Your task to perform on an android device: Open calendar and show me the fourth week of next month Image 0: 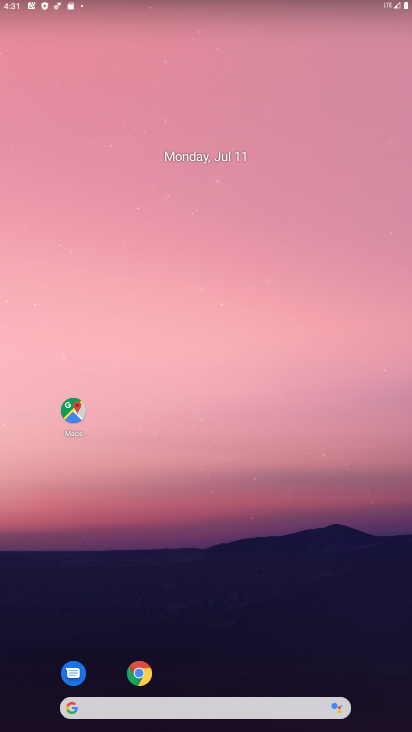
Step 0: drag from (285, 664) to (277, 150)
Your task to perform on an android device: Open calendar and show me the fourth week of next month Image 1: 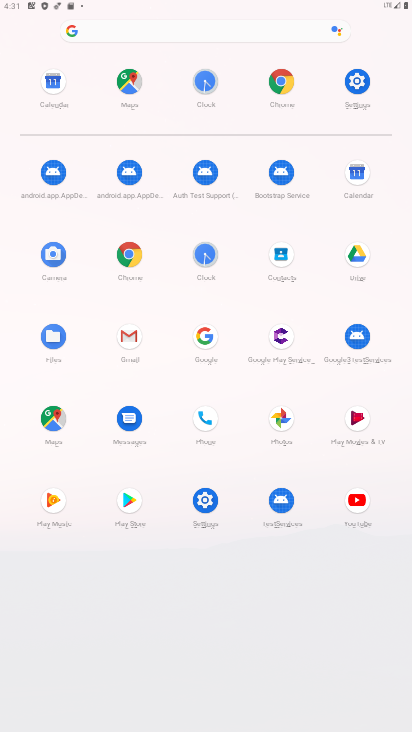
Step 1: click (359, 172)
Your task to perform on an android device: Open calendar and show me the fourth week of next month Image 2: 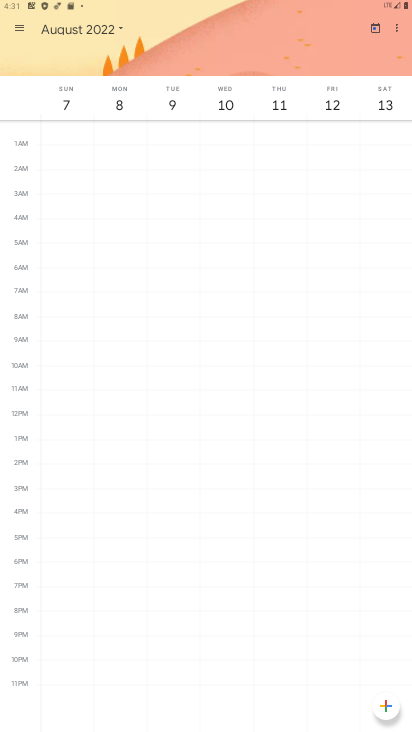
Step 2: click (85, 27)
Your task to perform on an android device: Open calendar and show me the fourth week of next month Image 3: 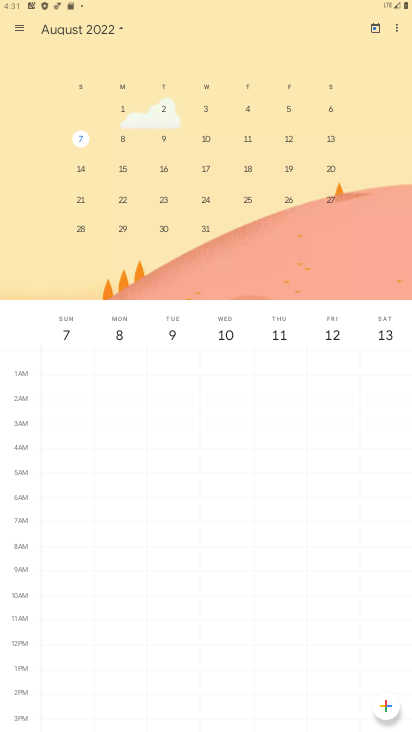
Step 3: click (245, 203)
Your task to perform on an android device: Open calendar and show me the fourth week of next month Image 4: 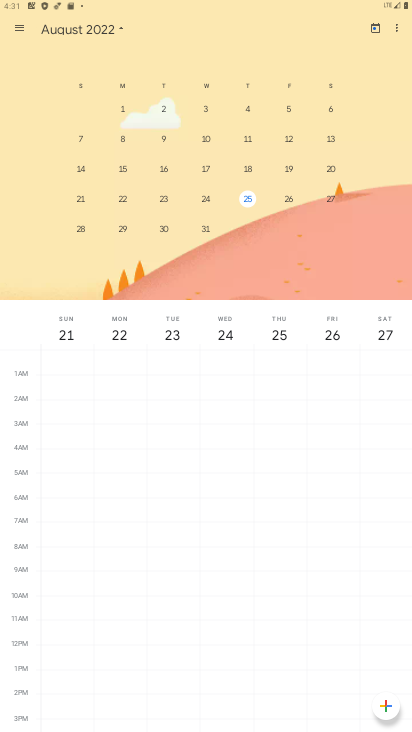
Step 4: task complete